Your task to perform on an android device: find photos in the google photos app Image 0: 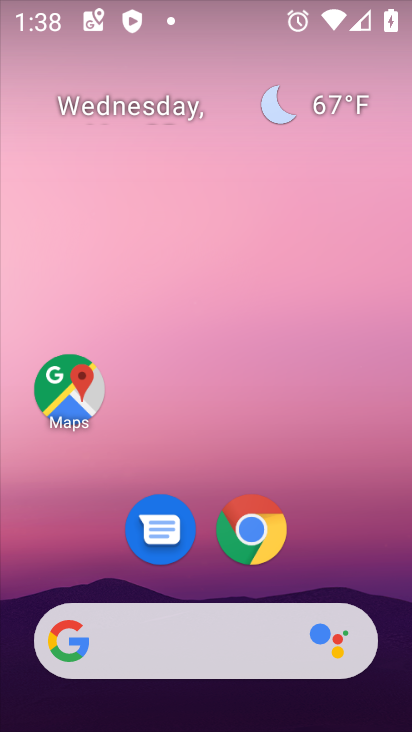
Step 0: drag from (326, 558) to (220, 89)
Your task to perform on an android device: find photos in the google photos app Image 1: 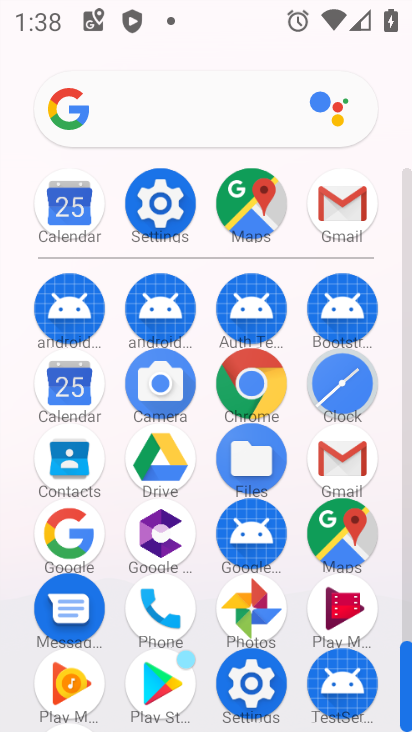
Step 1: click (252, 608)
Your task to perform on an android device: find photos in the google photos app Image 2: 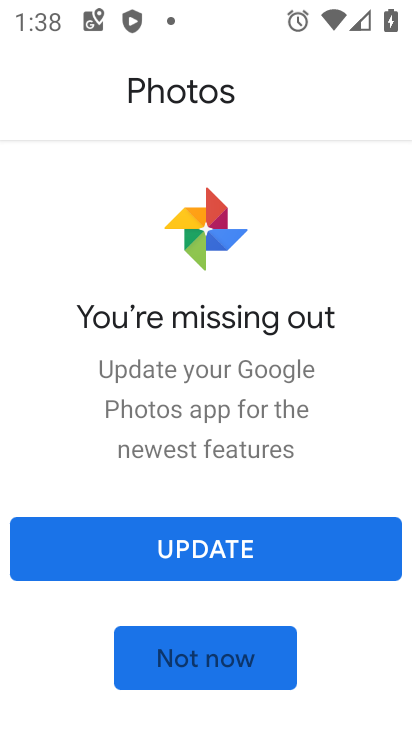
Step 2: click (226, 558)
Your task to perform on an android device: find photos in the google photos app Image 3: 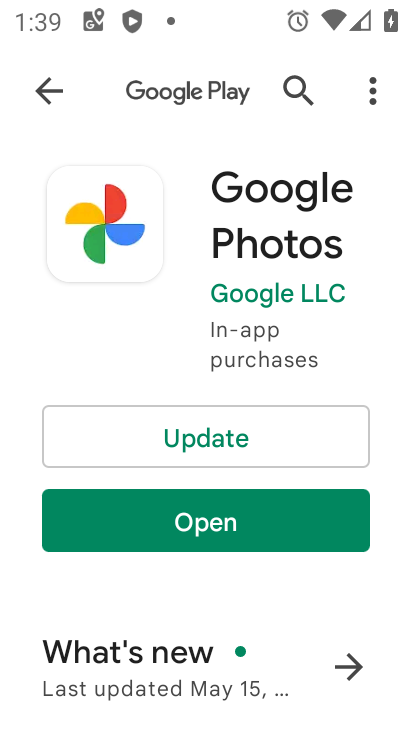
Step 3: click (225, 446)
Your task to perform on an android device: find photos in the google photos app Image 4: 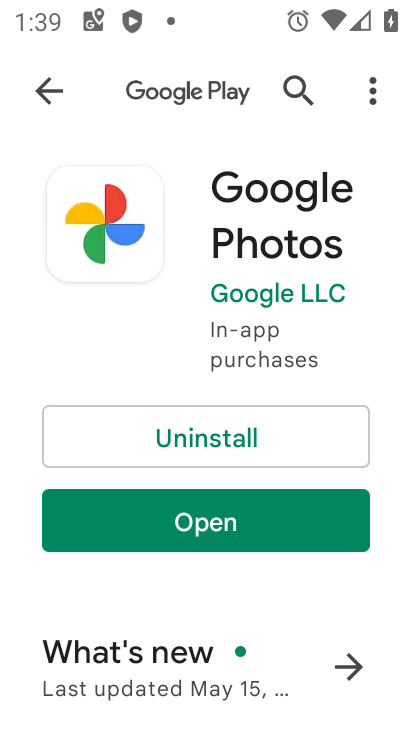
Step 4: click (230, 528)
Your task to perform on an android device: find photos in the google photos app Image 5: 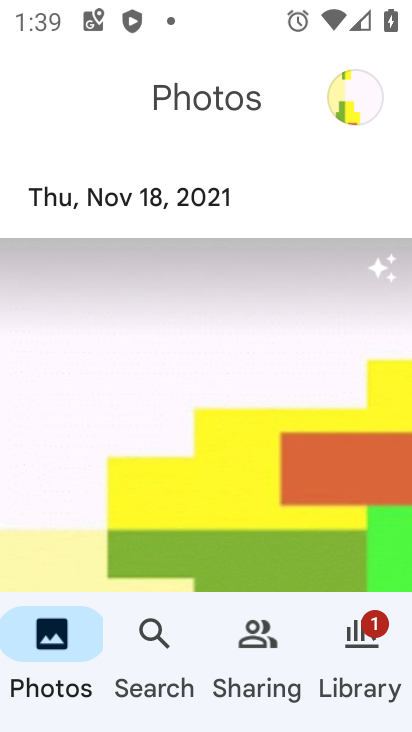
Step 5: click (135, 365)
Your task to perform on an android device: find photos in the google photos app Image 6: 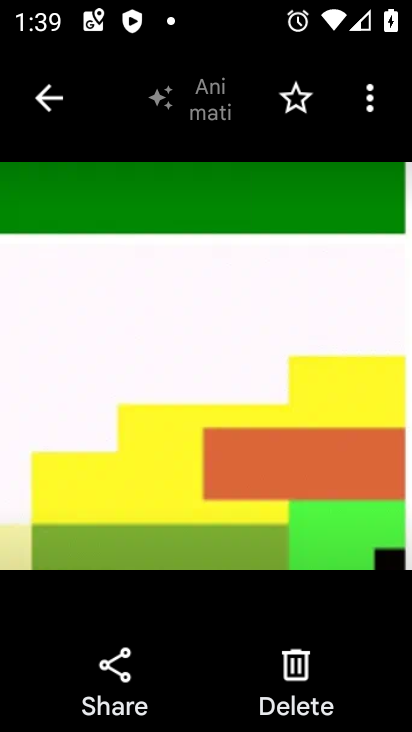
Step 6: task complete